Your task to perform on an android device: What's on my calendar tomorrow? Image 0: 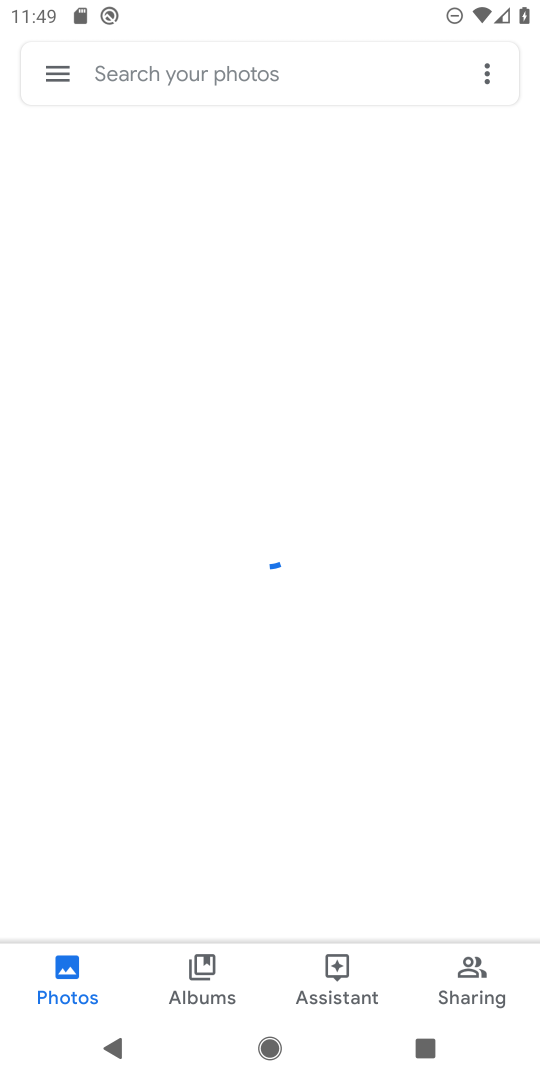
Step 0: press back button
Your task to perform on an android device: What's on my calendar tomorrow? Image 1: 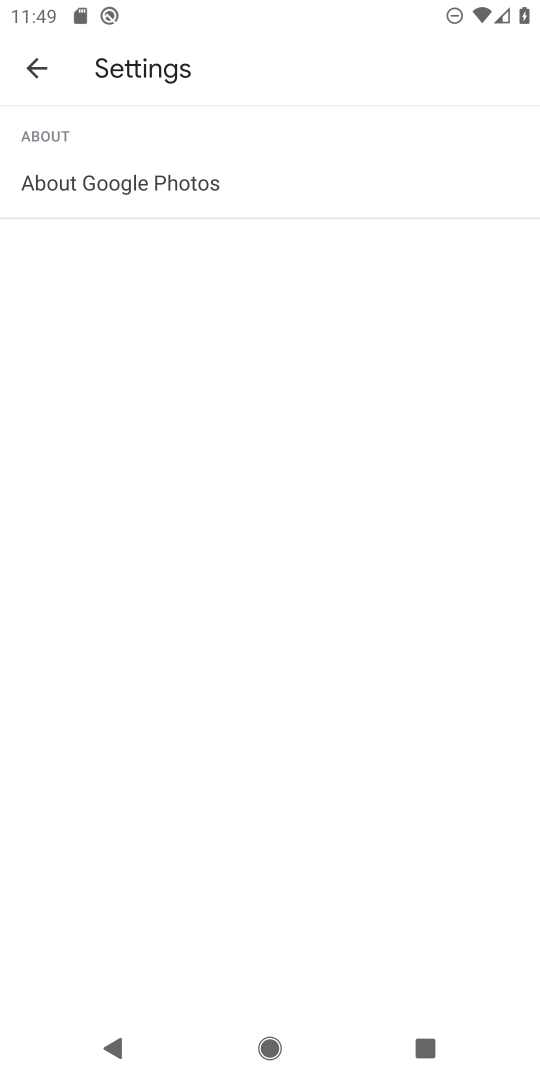
Step 1: press back button
Your task to perform on an android device: What's on my calendar tomorrow? Image 2: 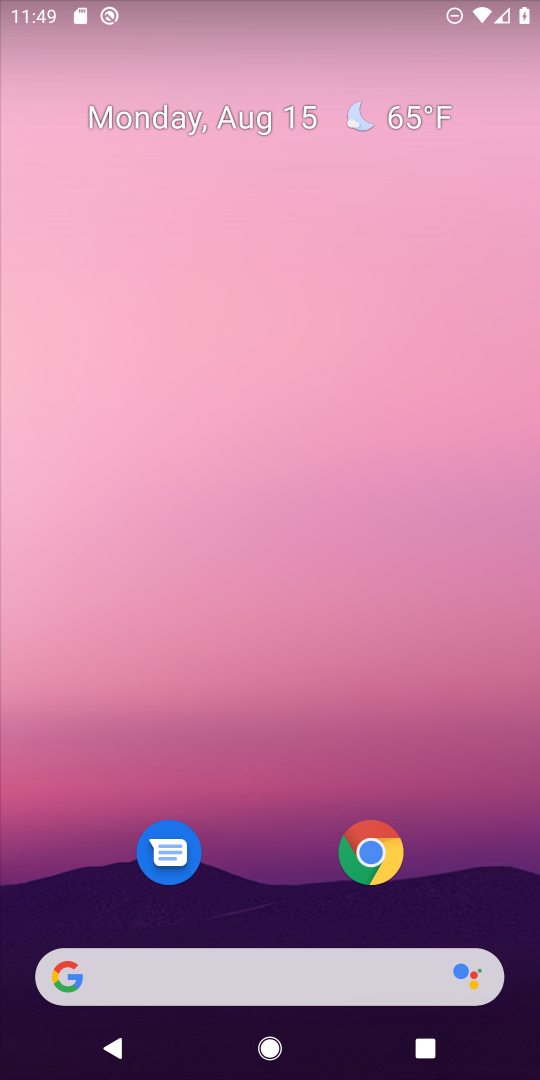
Step 2: drag from (294, 550) to (366, 132)
Your task to perform on an android device: What's on my calendar tomorrow? Image 3: 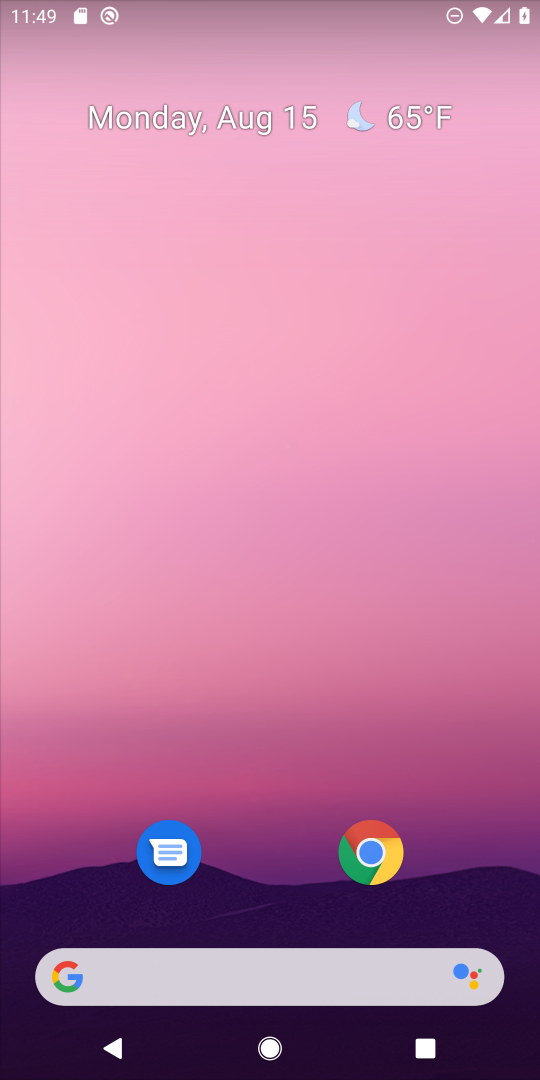
Step 3: drag from (226, 875) to (374, 0)
Your task to perform on an android device: What's on my calendar tomorrow? Image 4: 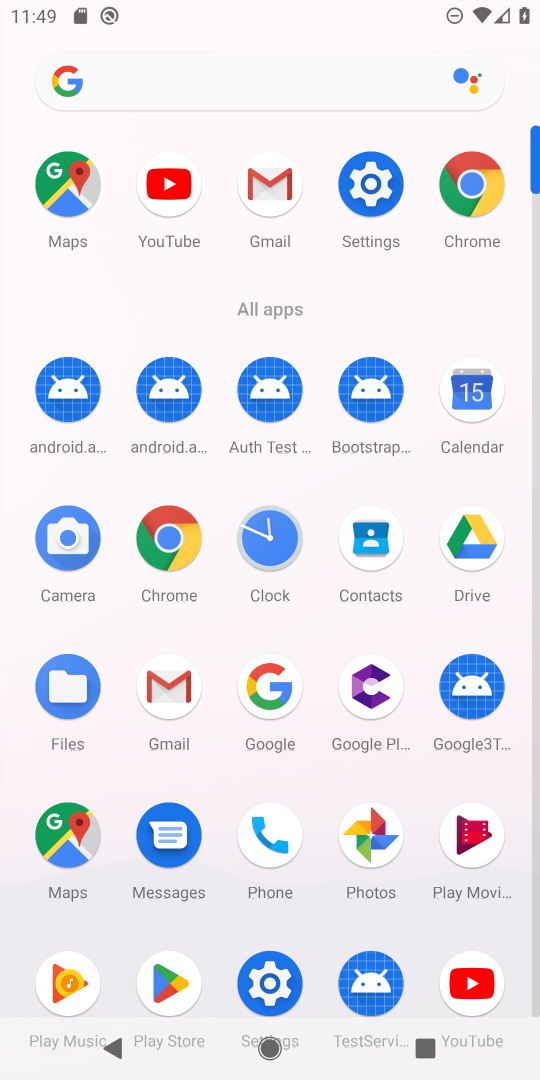
Step 4: click (451, 381)
Your task to perform on an android device: What's on my calendar tomorrow? Image 5: 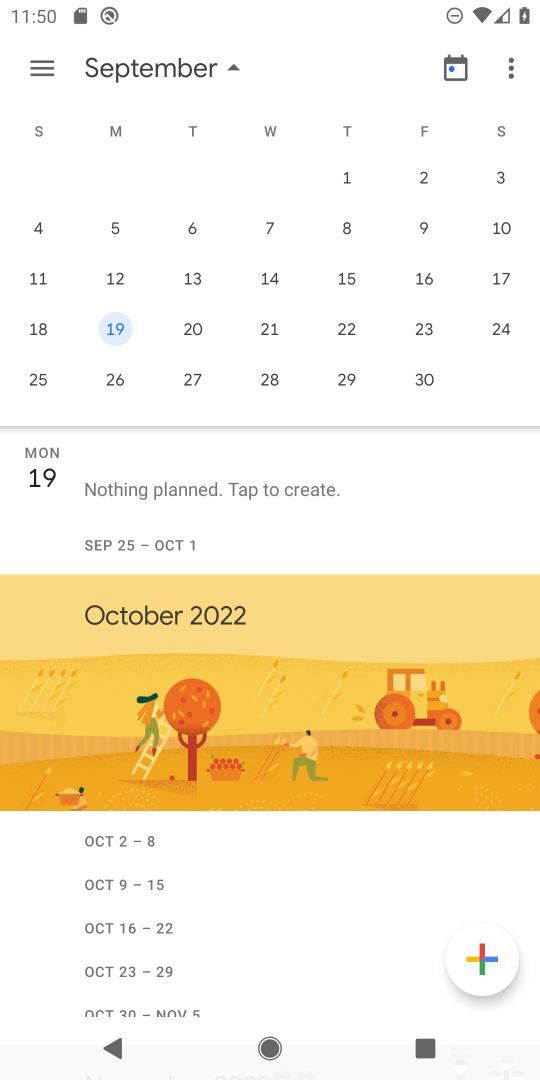
Step 5: drag from (30, 329) to (509, 343)
Your task to perform on an android device: What's on my calendar tomorrow? Image 6: 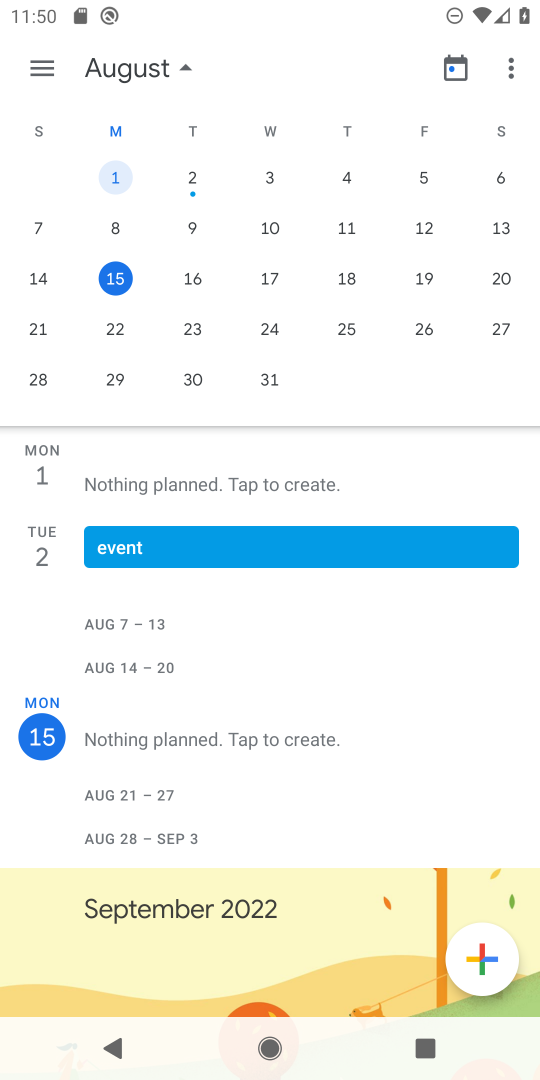
Step 6: click (196, 283)
Your task to perform on an android device: What's on my calendar tomorrow? Image 7: 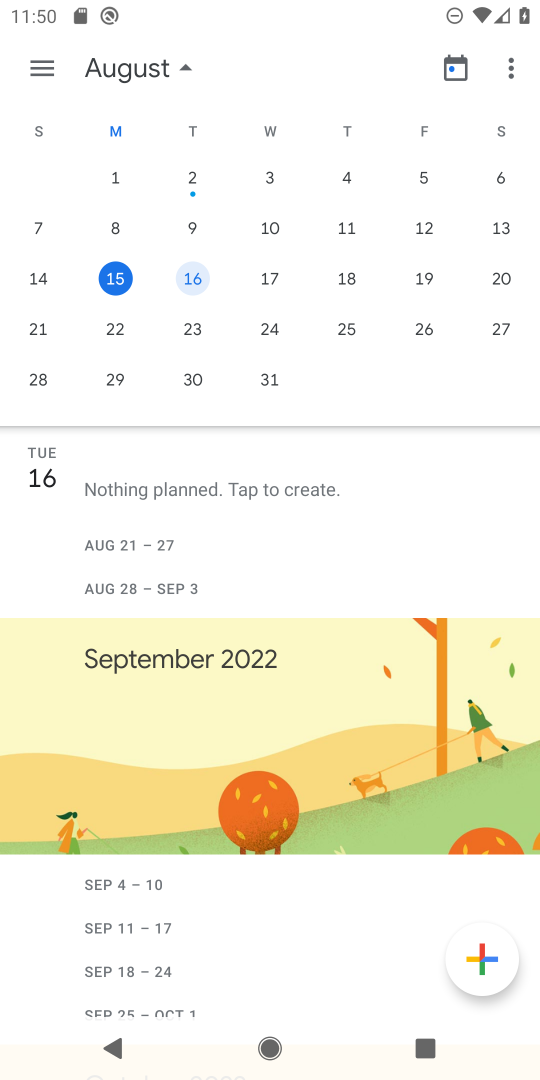
Step 7: click (266, 283)
Your task to perform on an android device: What's on my calendar tomorrow? Image 8: 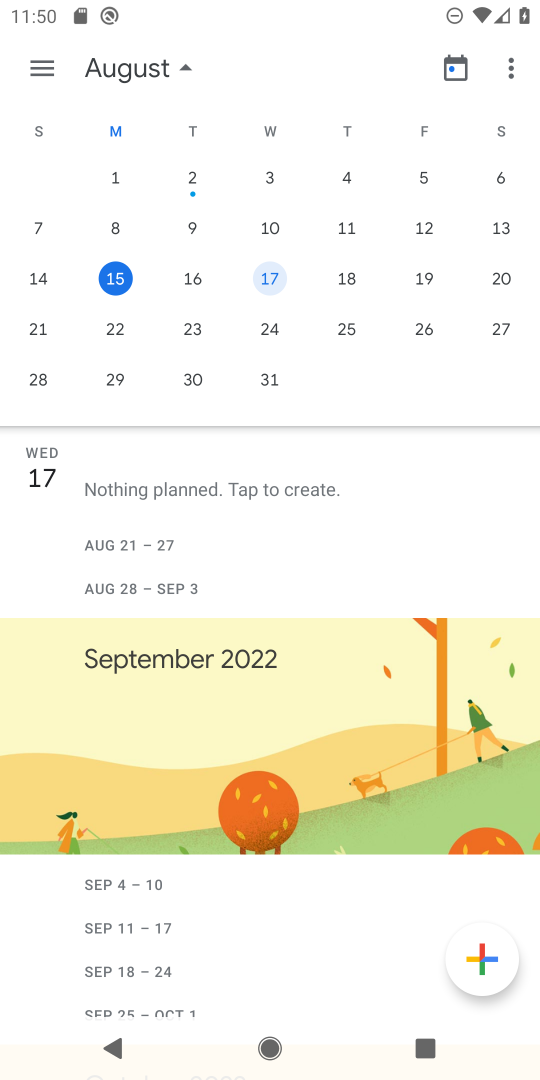
Step 8: task complete